Your task to perform on an android device: turn on notifications settings in the gmail app Image 0: 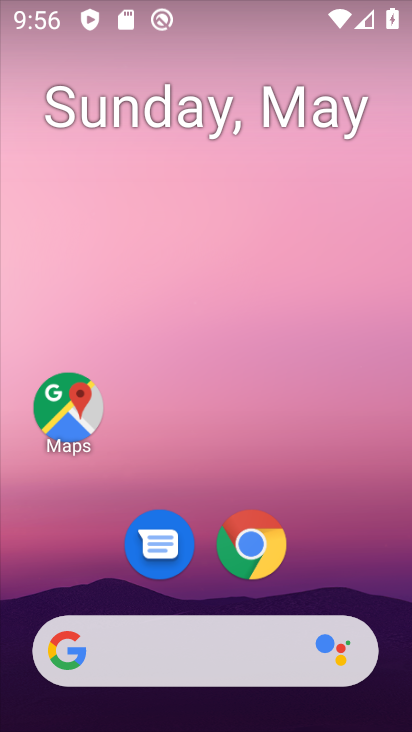
Step 0: drag from (322, 524) to (315, 221)
Your task to perform on an android device: turn on notifications settings in the gmail app Image 1: 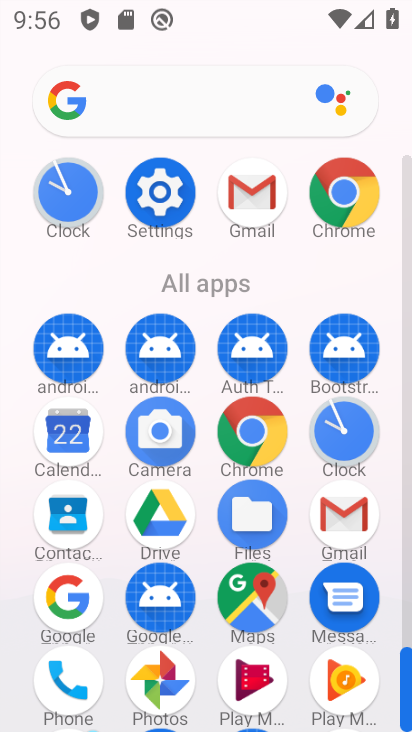
Step 1: click (247, 196)
Your task to perform on an android device: turn on notifications settings in the gmail app Image 2: 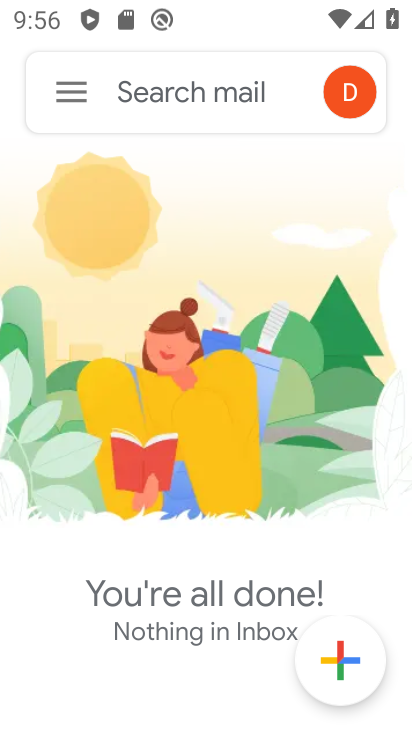
Step 2: click (59, 88)
Your task to perform on an android device: turn on notifications settings in the gmail app Image 3: 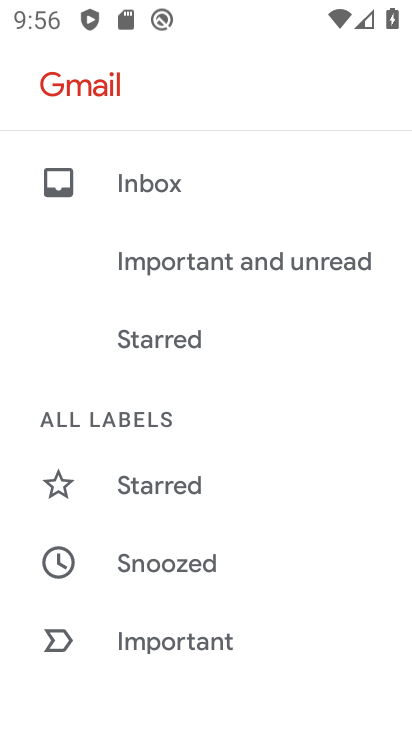
Step 3: drag from (122, 629) to (227, 176)
Your task to perform on an android device: turn on notifications settings in the gmail app Image 4: 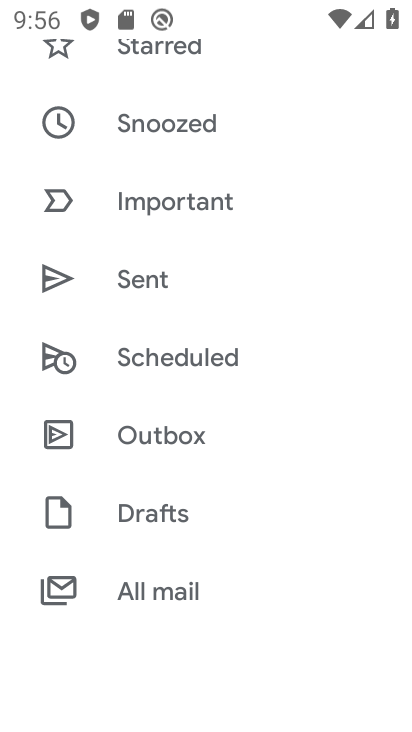
Step 4: drag from (171, 625) to (276, 168)
Your task to perform on an android device: turn on notifications settings in the gmail app Image 5: 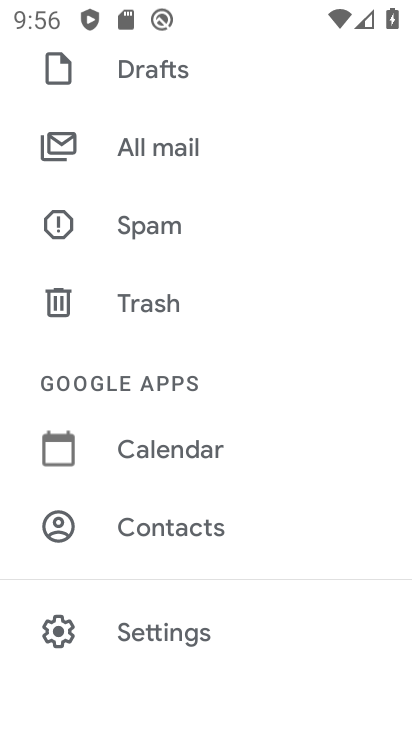
Step 5: click (181, 618)
Your task to perform on an android device: turn on notifications settings in the gmail app Image 6: 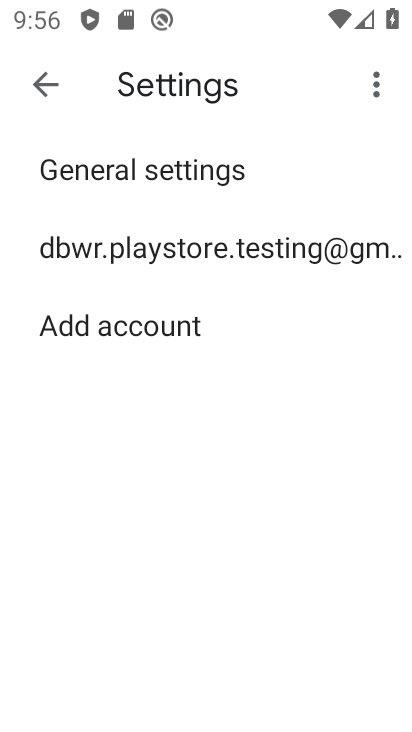
Step 6: click (115, 252)
Your task to perform on an android device: turn on notifications settings in the gmail app Image 7: 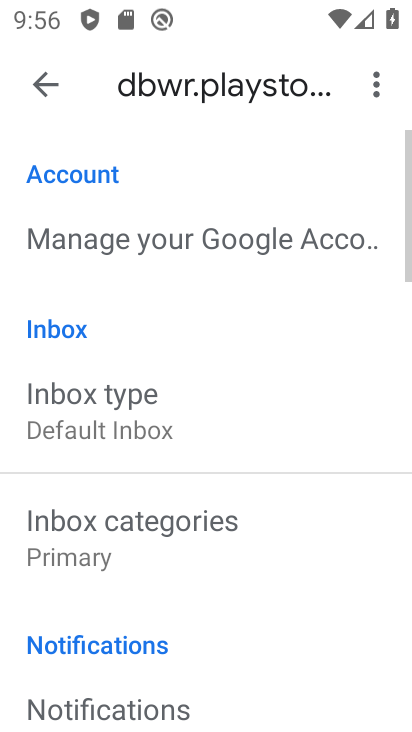
Step 7: click (127, 561)
Your task to perform on an android device: turn on notifications settings in the gmail app Image 8: 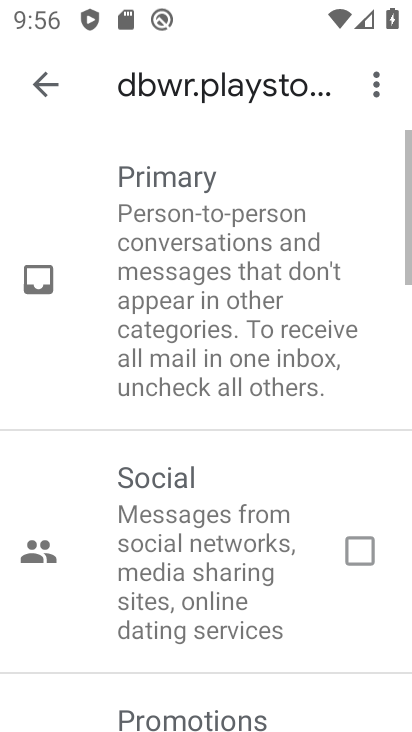
Step 8: click (87, 65)
Your task to perform on an android device: turn on notifications settings in the gmail app Image 9: 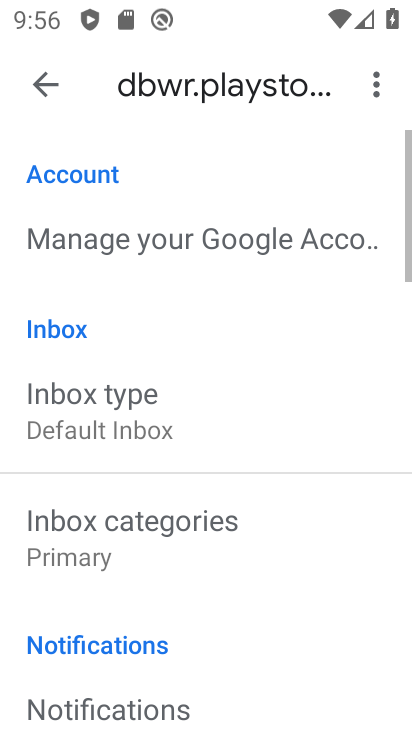
Step 9: click (128, 706)
Your task to perform on an android device: turn on notifications settings in the gmail app Image 10: 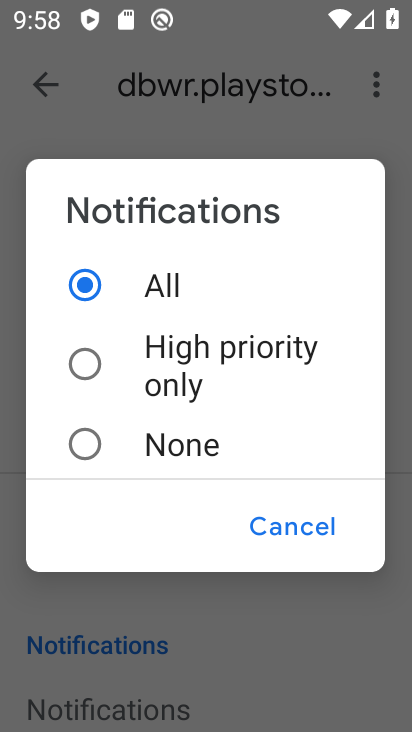
Step 10: task complete